Your task to perform on an android device: turn on javascript in the chrome app Image 0: 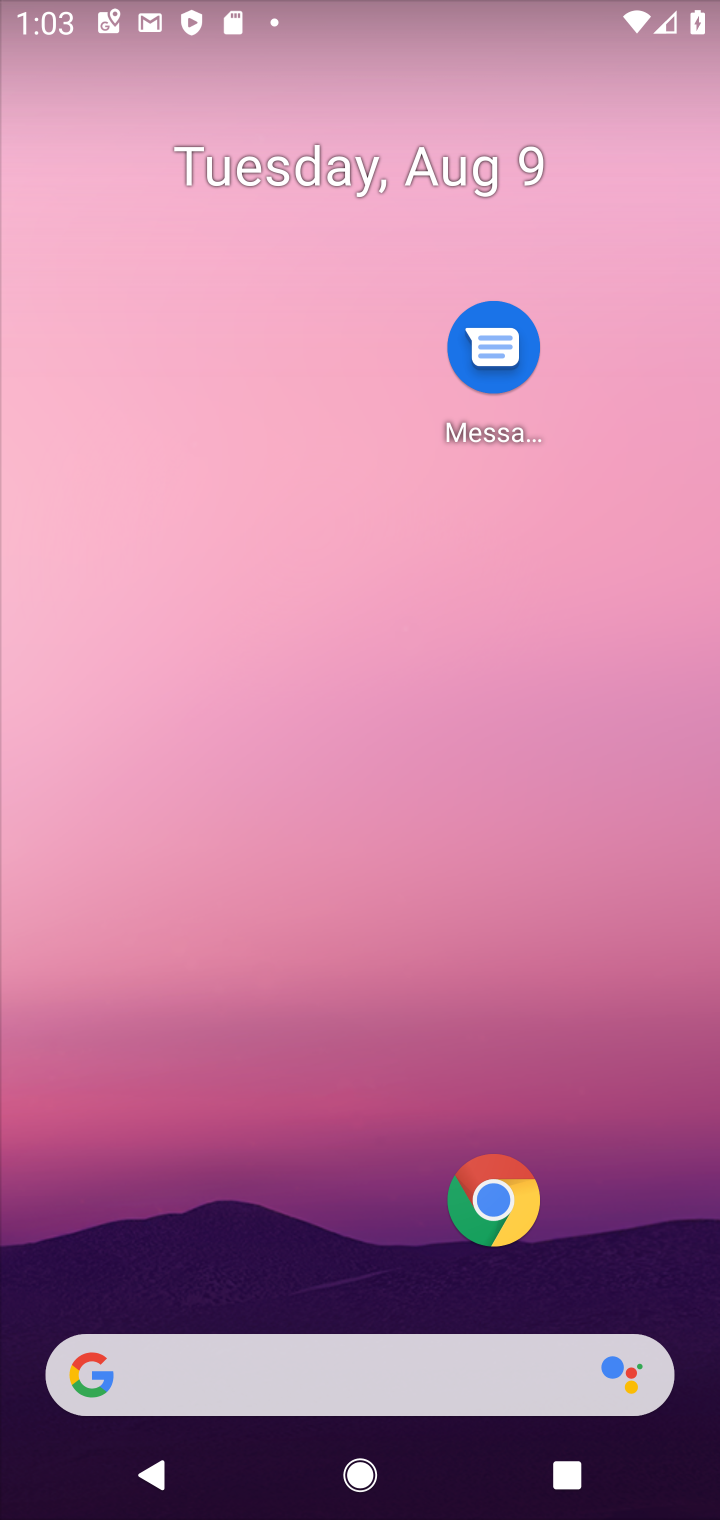
Step 0: drag from (298, 1115) to (394, 125)
Your task to perform on an android device: turn on javascript in the chrome app Image 1: 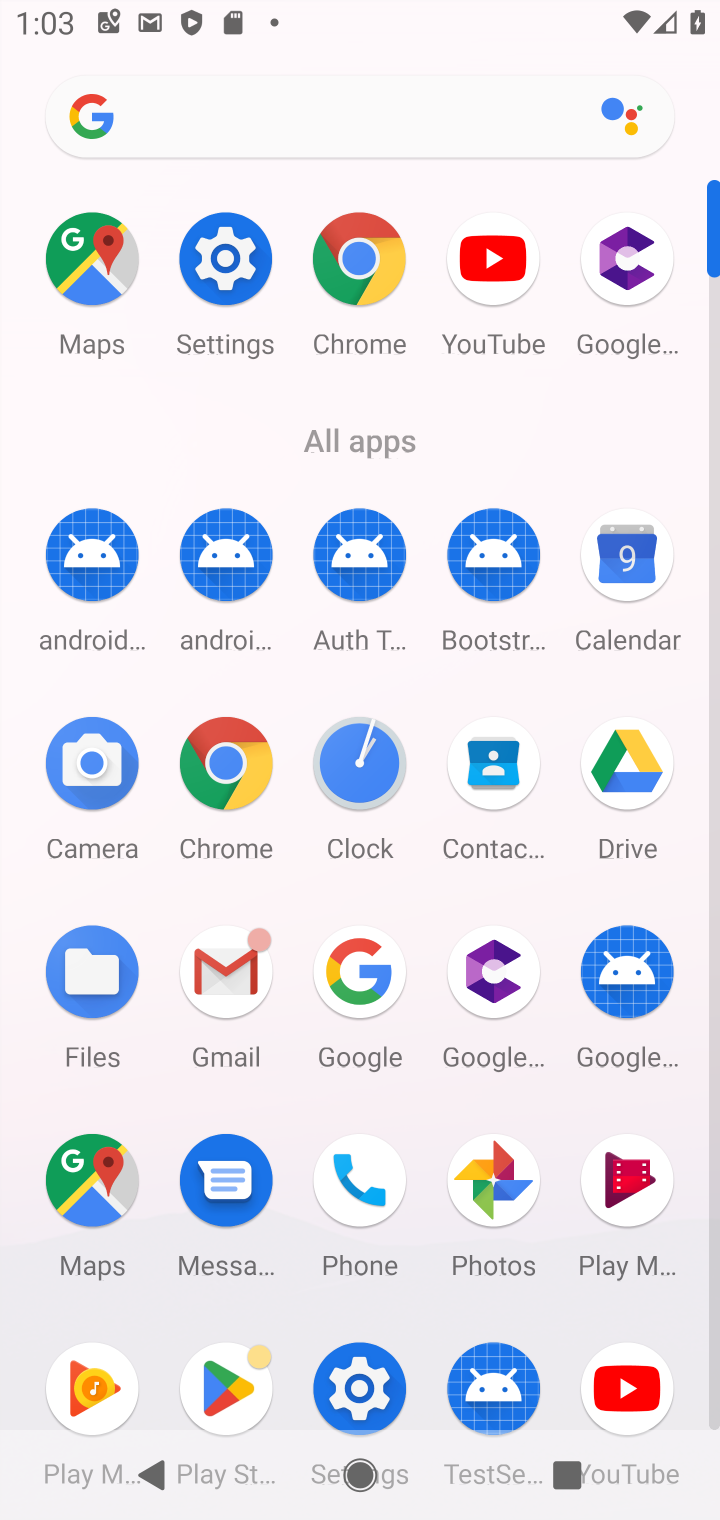
Step 1: click (361, 253)
Your task to perform on an android device: turn on javascript in the chrome app Image 2: 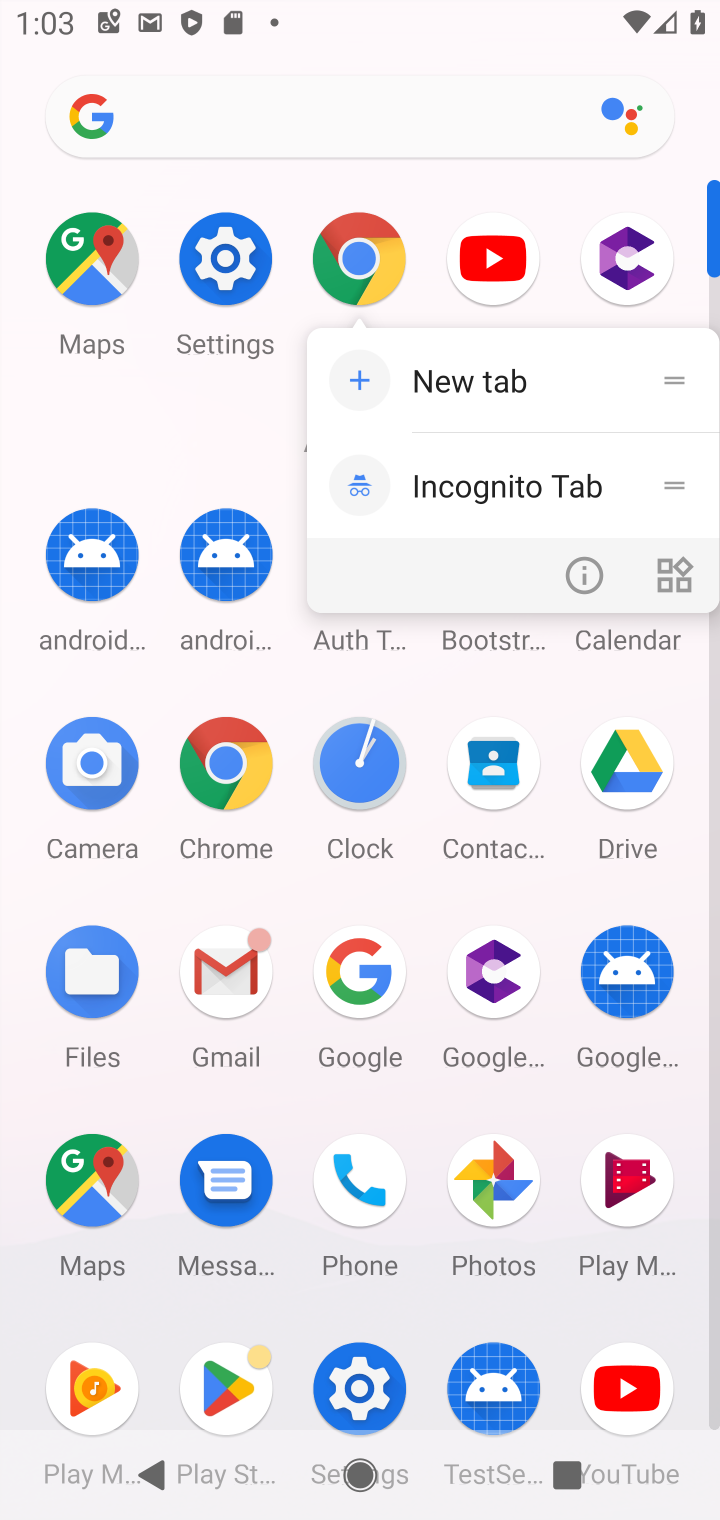
Step 2: click (361, 253)
Your task to perform on an android device: turn on javascript in the chrome app Image 3: 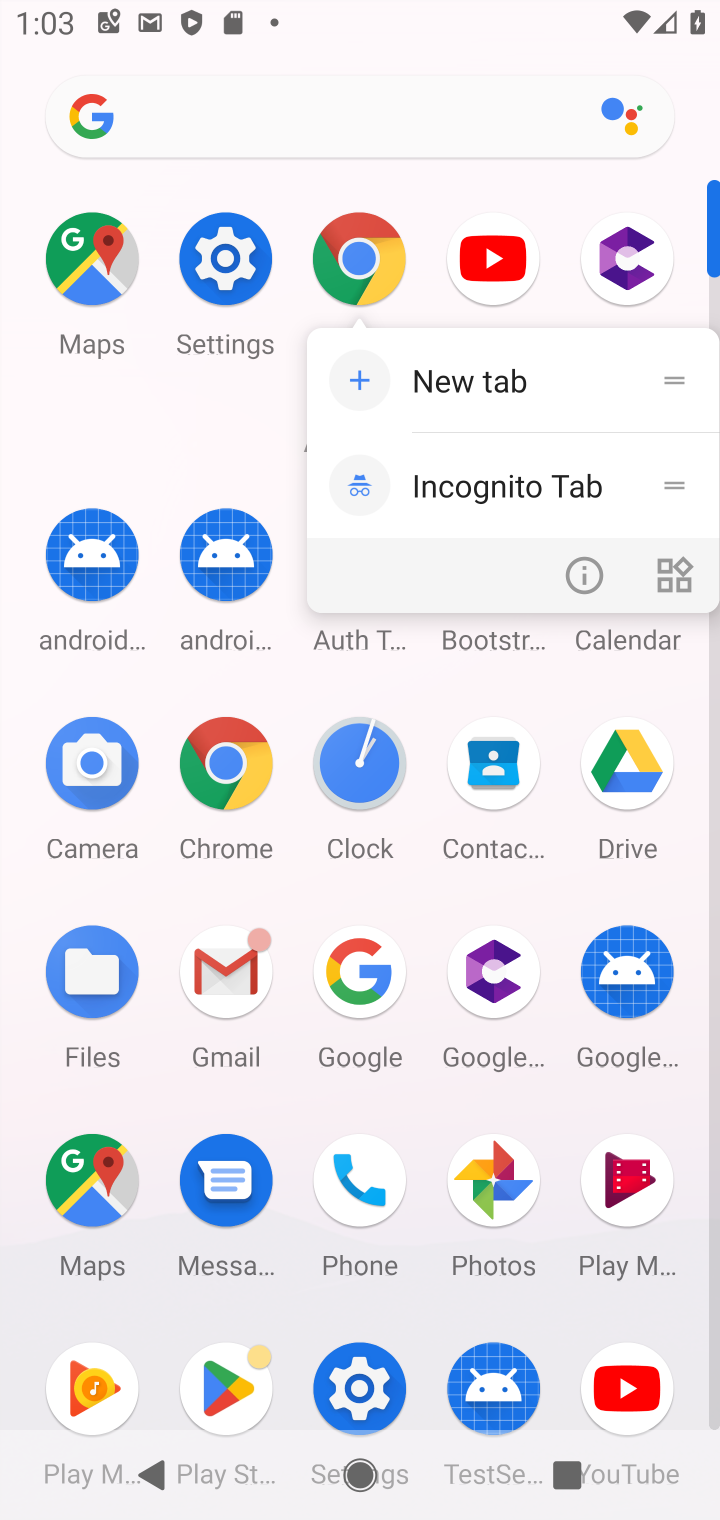
Step 3: click (374, 247)
Your task to perform on an android device: turn on javascript in the chrome app Image 4: 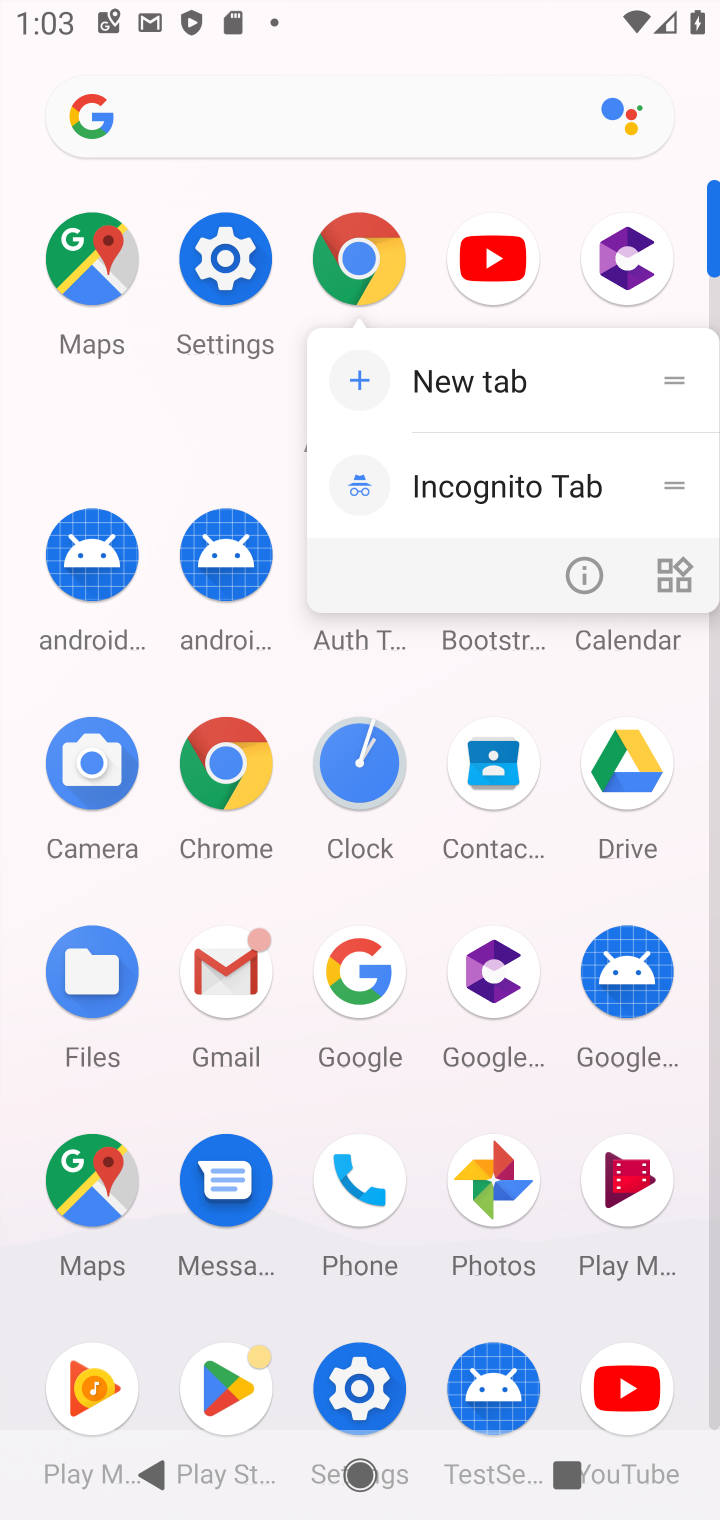
Step 4: click (359, 252)
Your task to perform on an android device: turn on javascript in the chrome app Image 5: 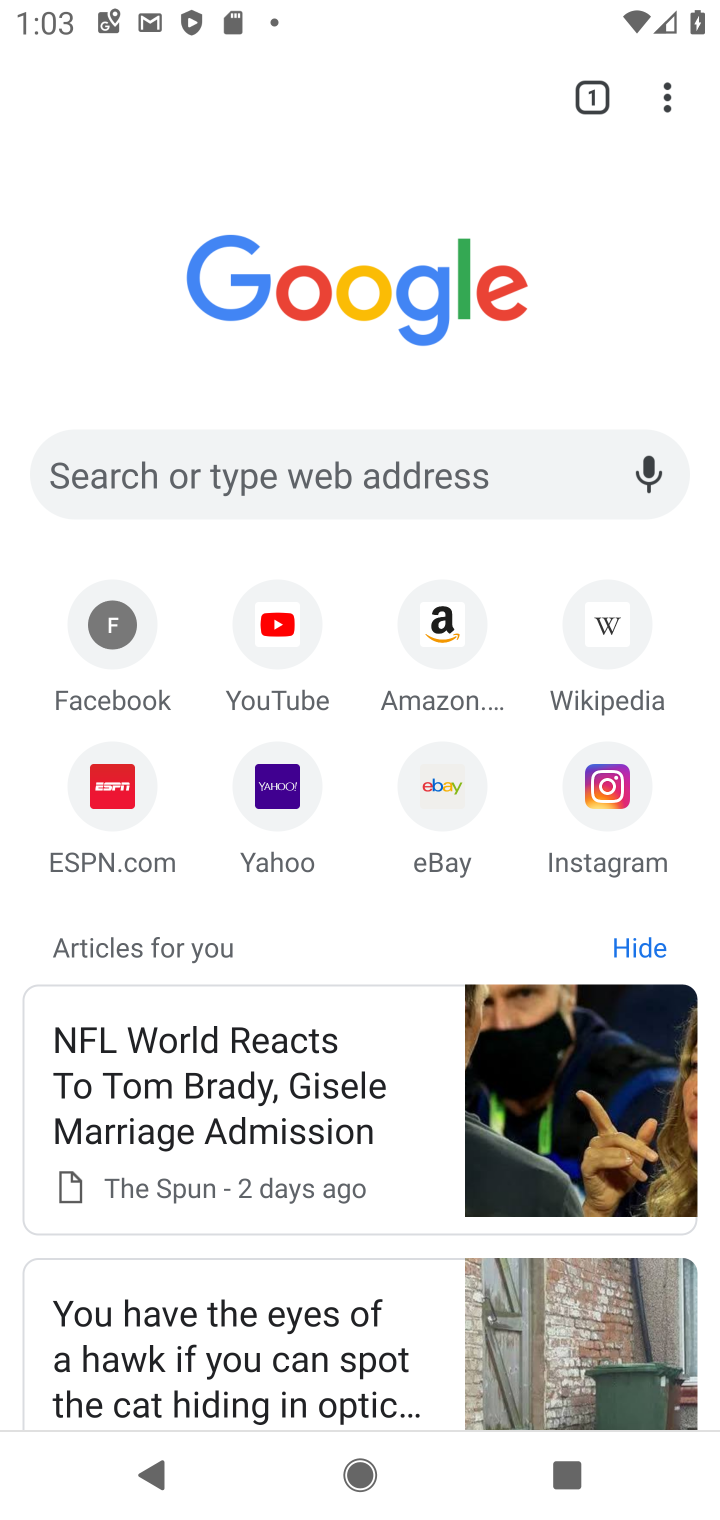
Step 5: drag from (659, 104) to (397, 800)
Your task to perform on an android device: turn on javascript in the chrome app Image 6: 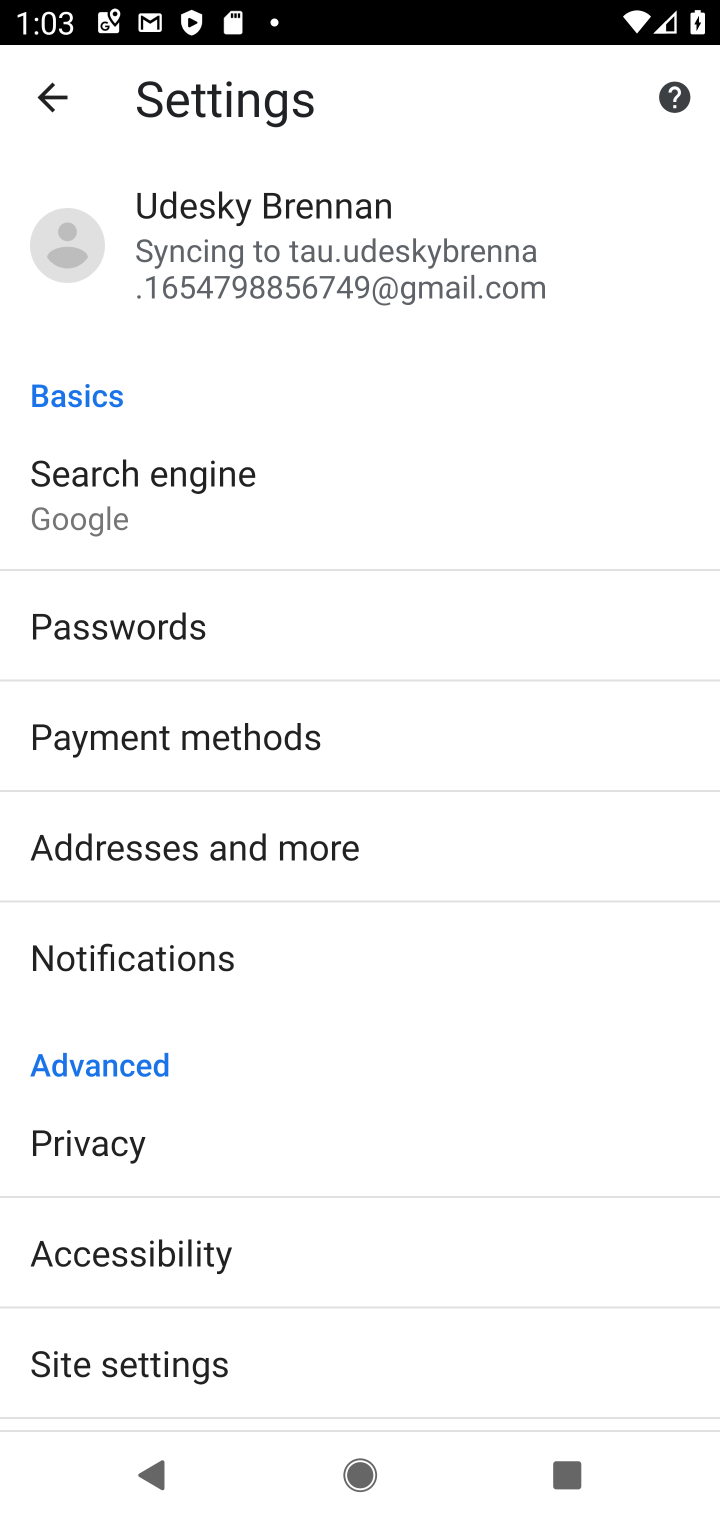
Step 6: drag from (381, 1292) to (525, 407)
Your task to perform on an android device: turn on javascript in the chrome app Image 7: 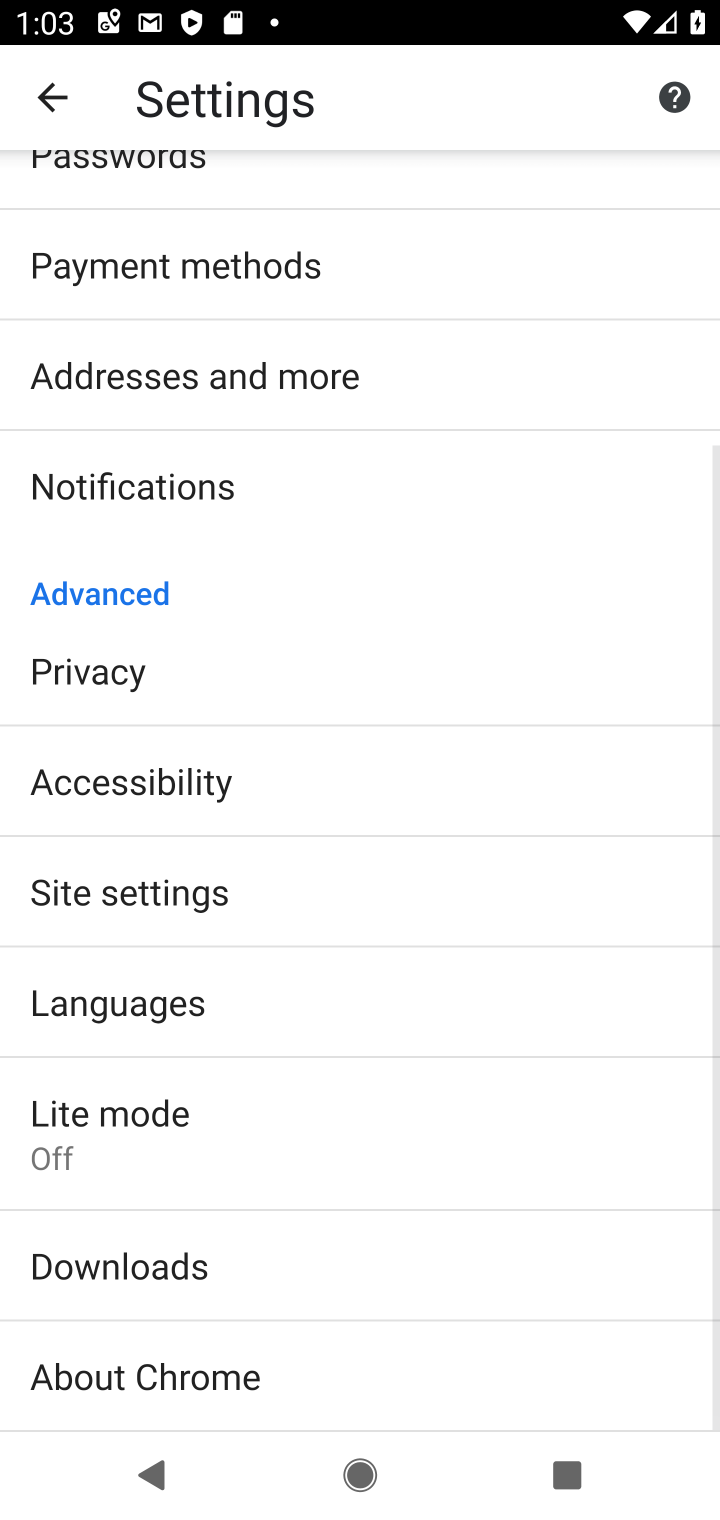
Step 7: click (118, 891)
Your task to perform on an android device: turn on javascript in the chrome app Image 8: 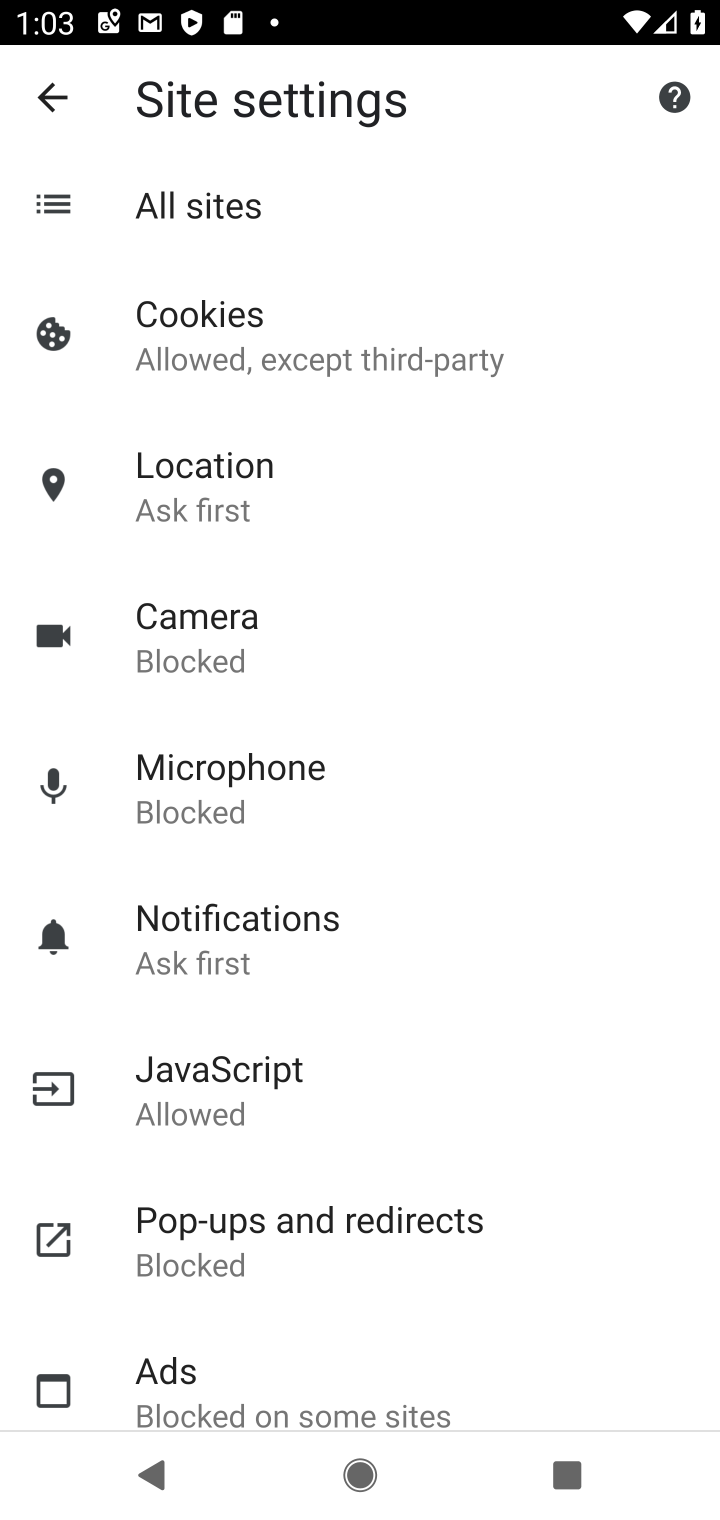
Step 8: click (327, 1060)
Your task to perform on an android device: turn on javascript in the chrome app Image 9: 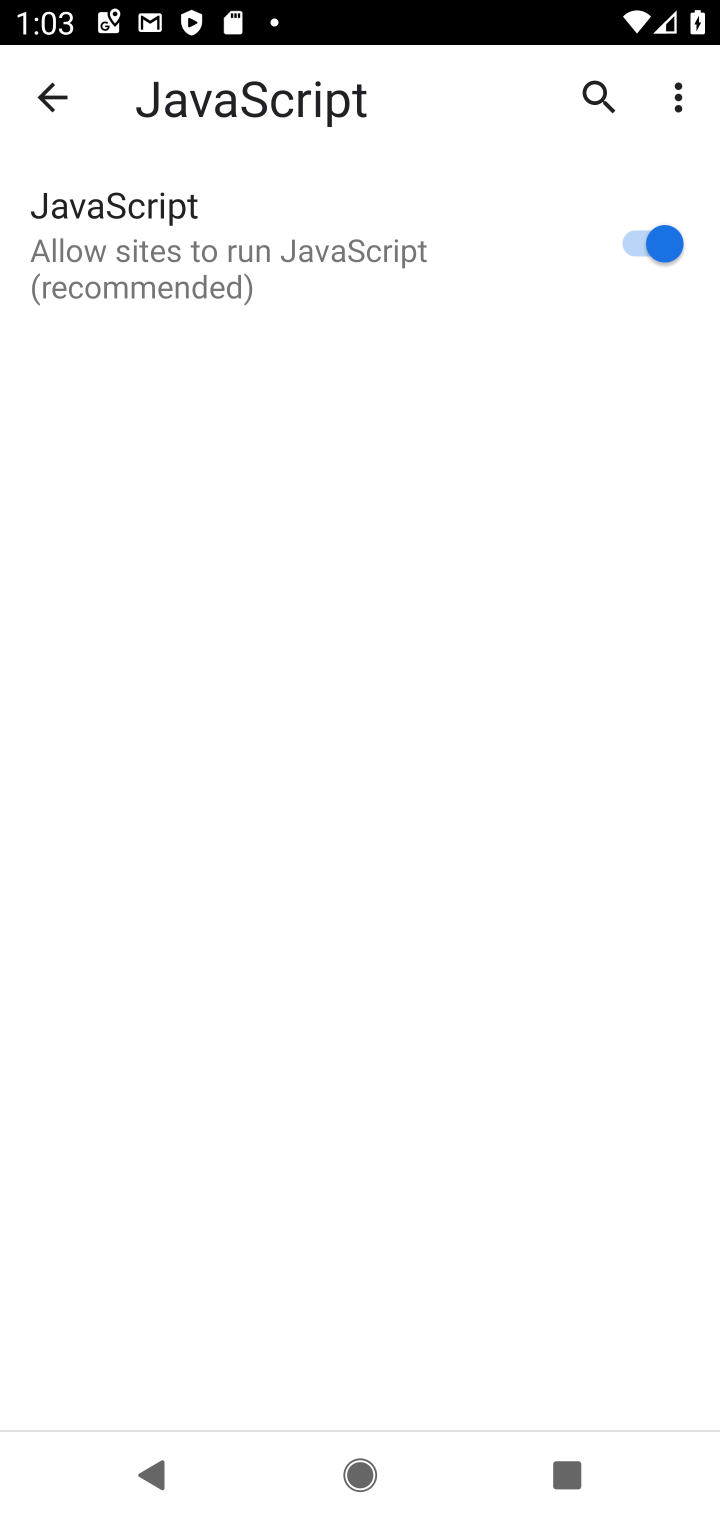
Step 9: task complete